Your task to perform on an android device: install app "Google Keep" Image 0: 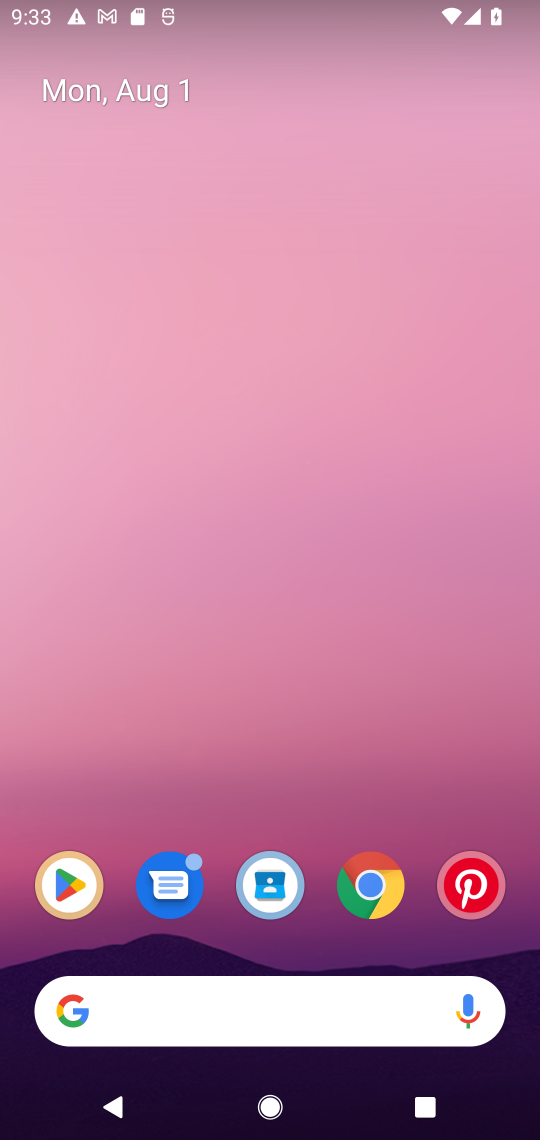
Step 0: drag from (327, 1133) to (251, 114)
Your task to perform on an android device: install app "Google Keep" Image 1: 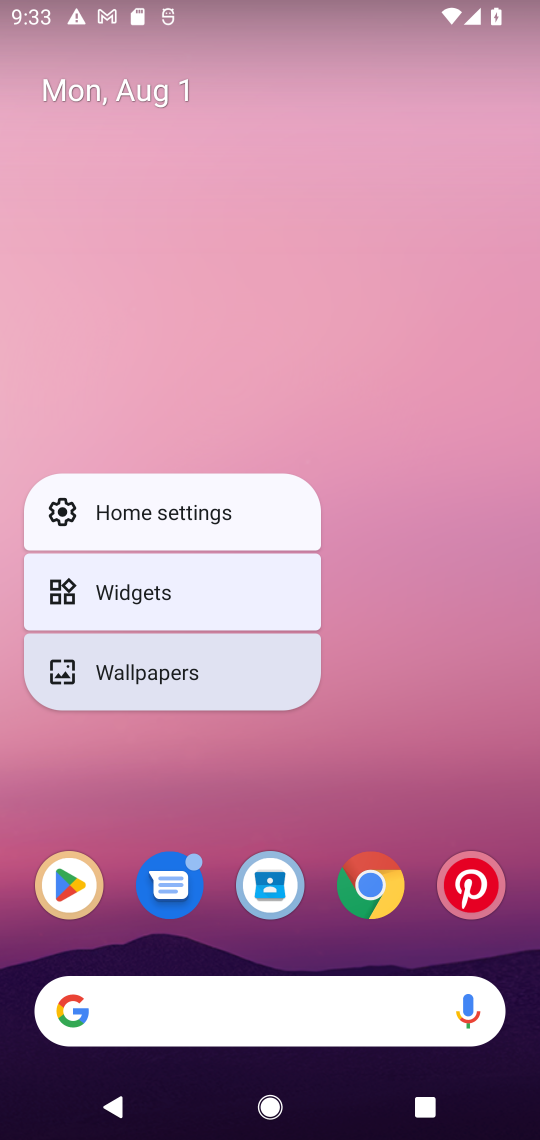
Step 1: click (302, 418)
Your task to perform on an android device: install app "Google Keep" Image 2: 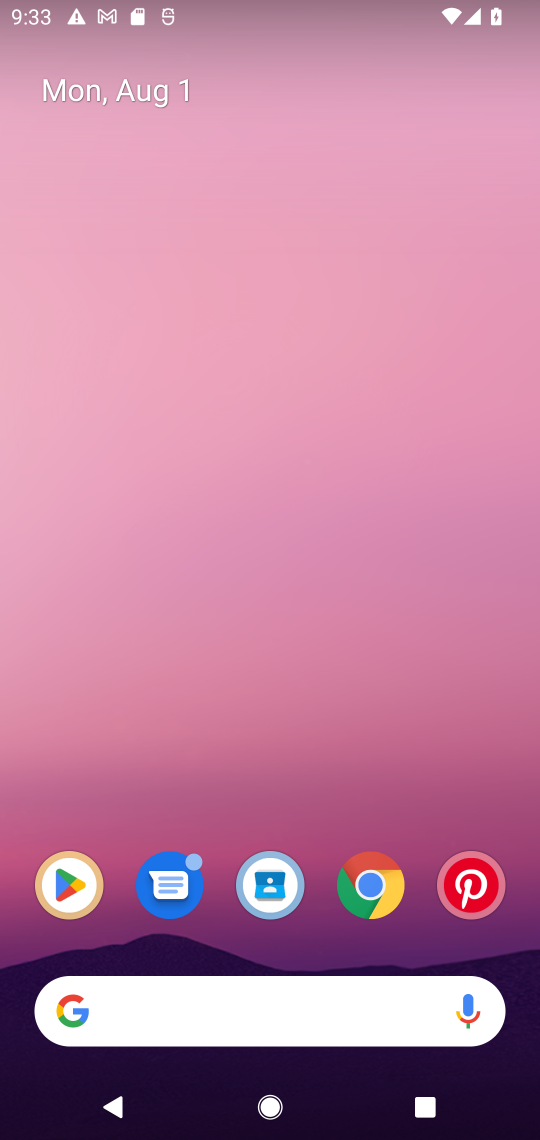
Step 2: drag from (324, 1128) to (336, 149)
Your task to perform on an android device: install app "Google Keep" Image 3: 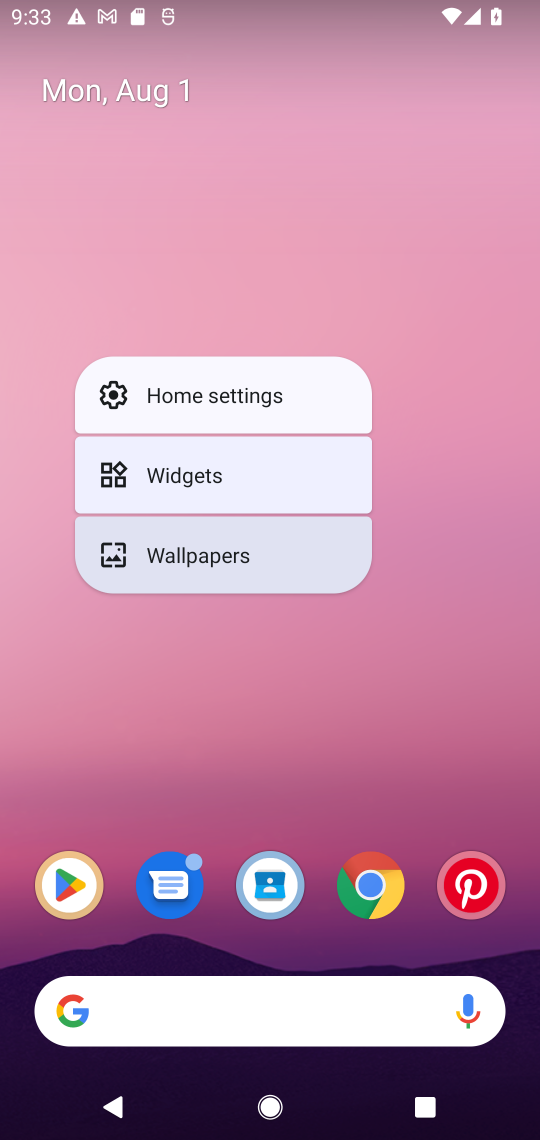
Step 3: click (280, 710)
Your task to perform on an android device: install app "Google Keep" Image 4: 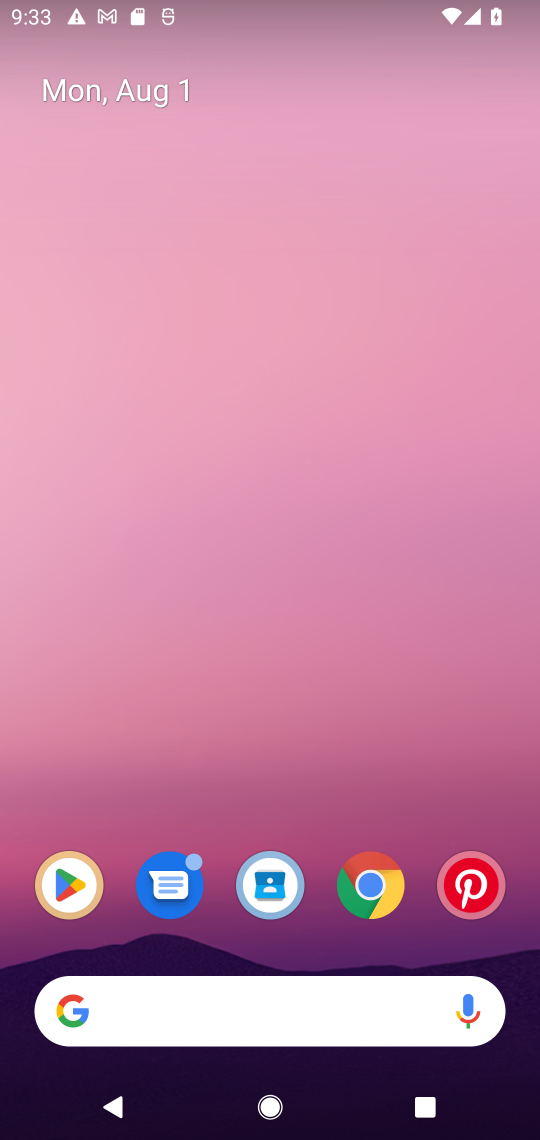
Step 4: drag from (301, 1126) to (301, 423)
Your task to perform on an android device: install app "Google Keep" Image 5: 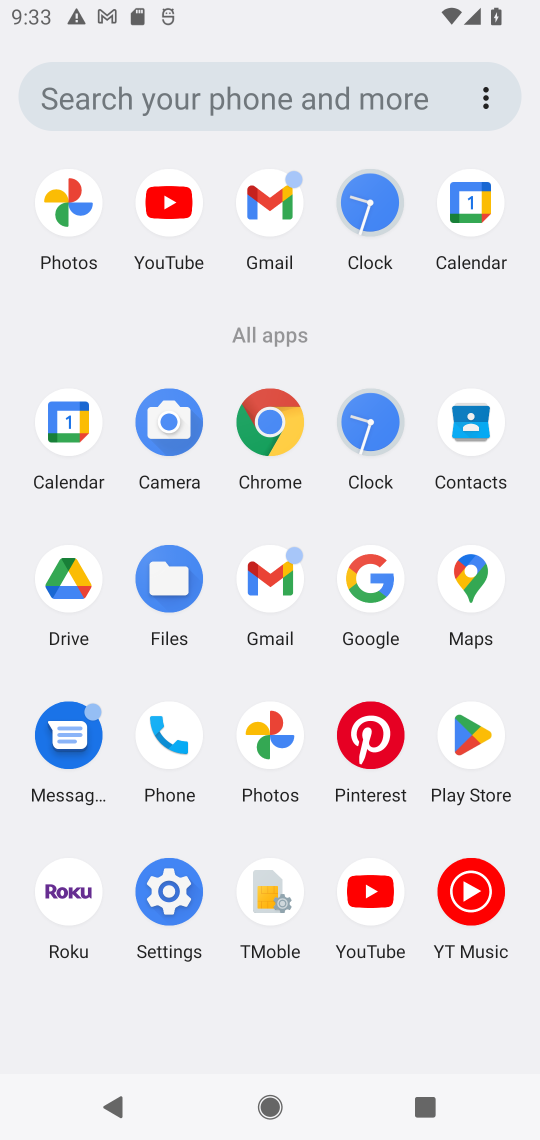
Step 5: click (459, 728)
Your task to perform on an android device: install app "Google Keep" Image 6: 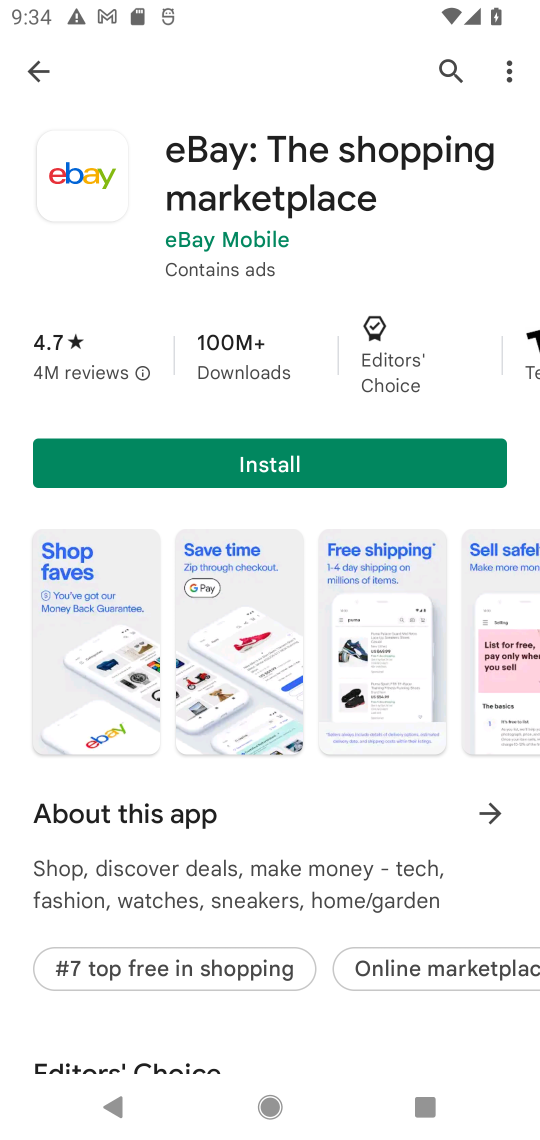
Step 6: click (442, 55)
Your task to perform on an android device: install app "Google Keep" Image 7: 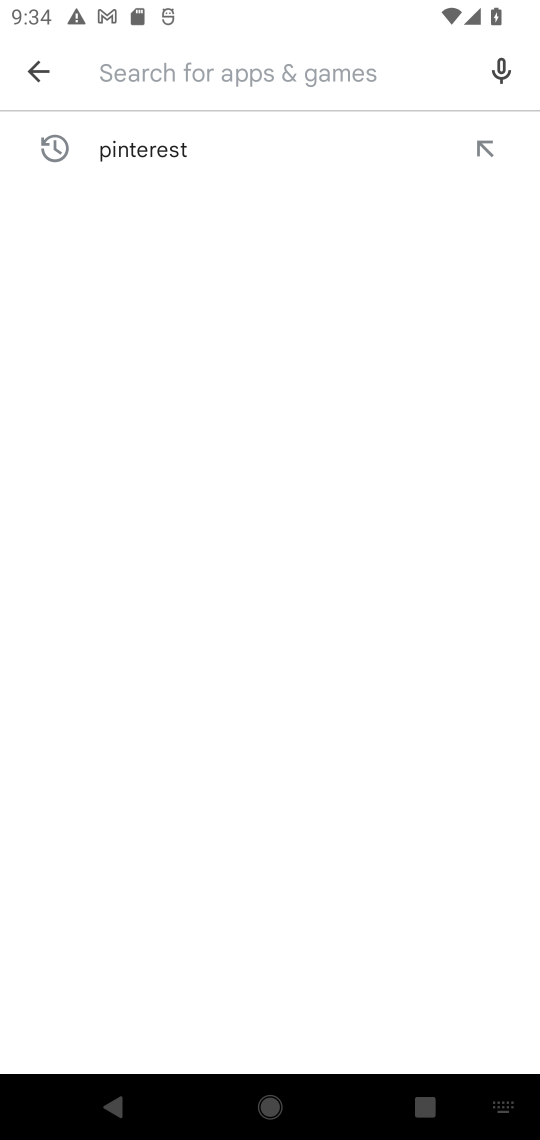
Step 7: type "Google Keep"
Your task to perform on an android device: install app "Google Keep" Image 8: 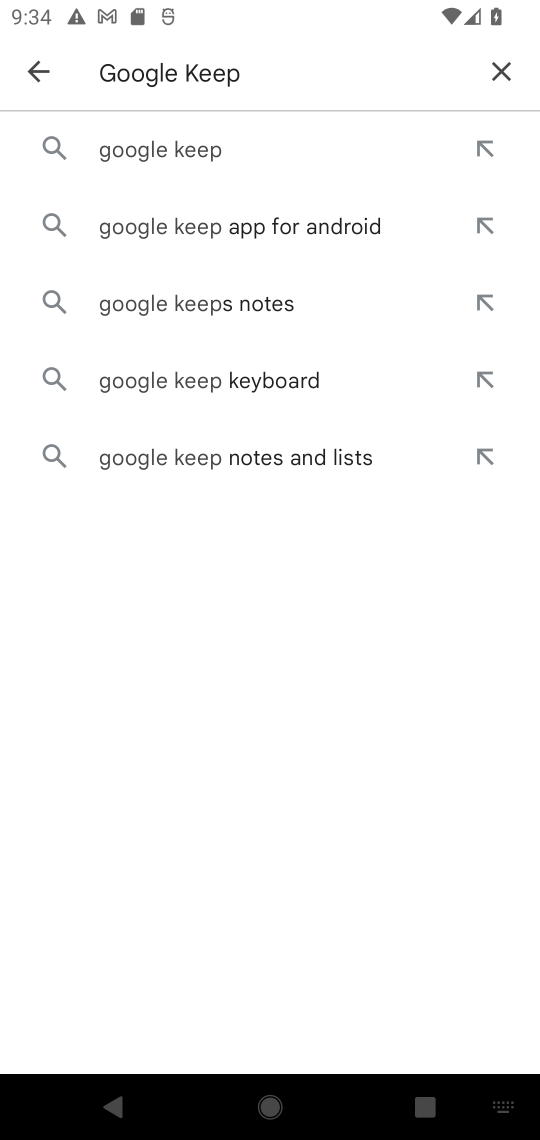
Step 8: click (191, 136)
Your task to perform on an android device: install app "Google Keep" Image 9: 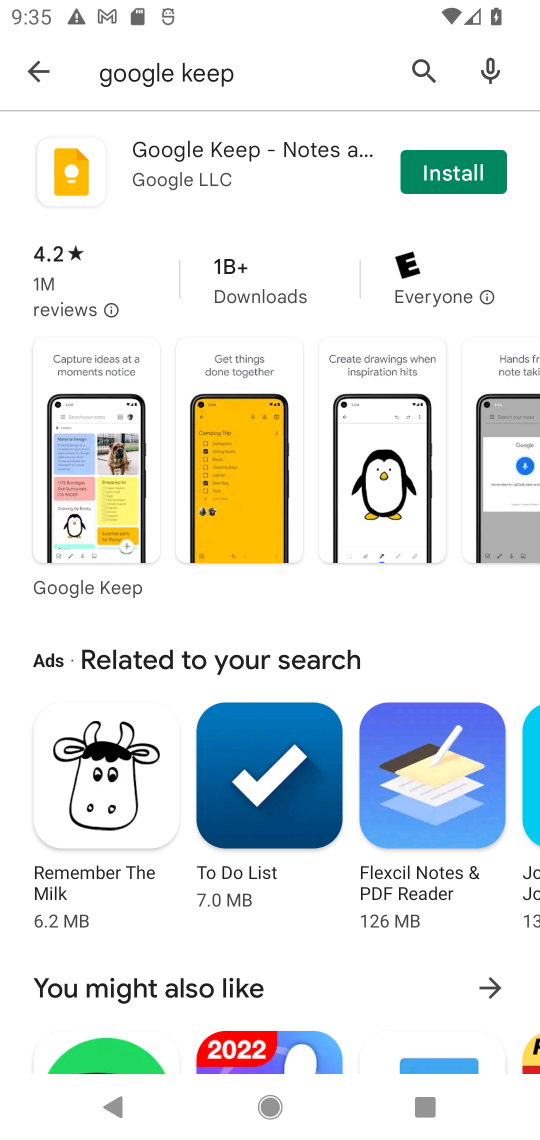
Step 9: click (479, 172)
Your task to perform on an android device: install app "Google Keep" Image 10: 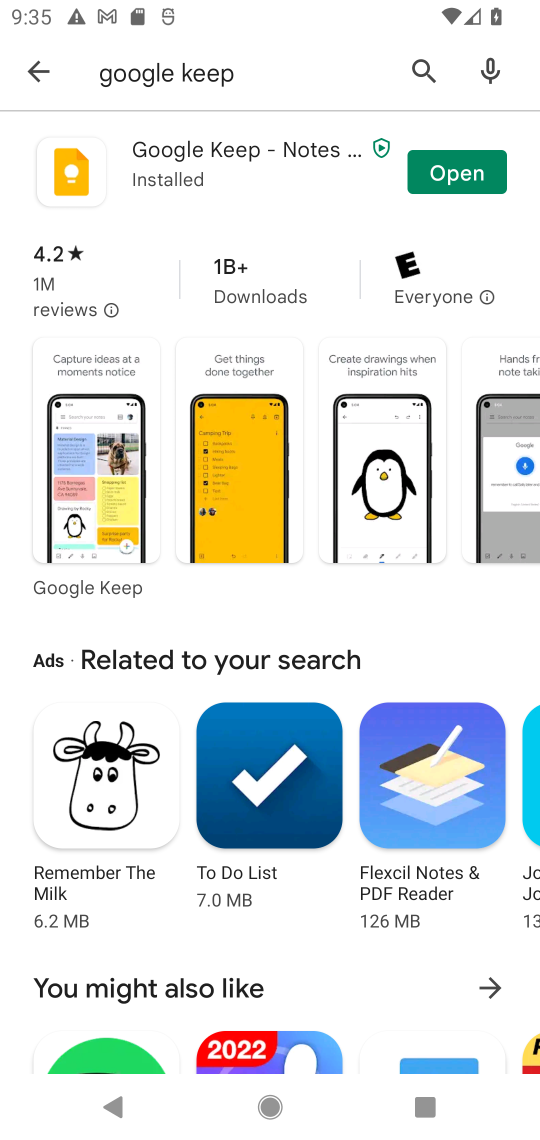
Step 10: task complete